Your task to perform on an android device: Go to eBay Image 0: 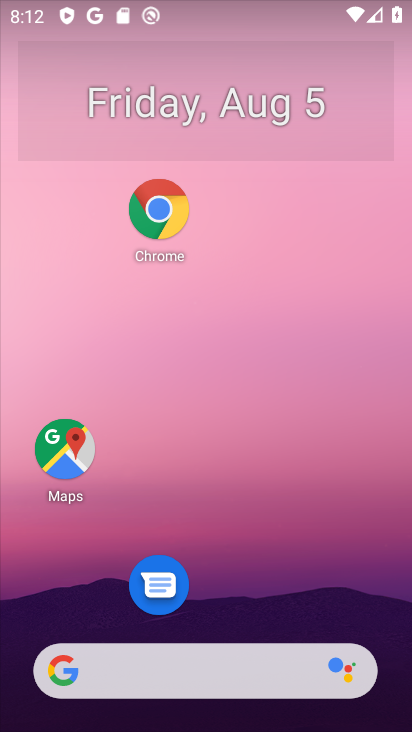
Step 0: click (176, 233)
Your task to perform on an android device: Go to eBay Image 1: 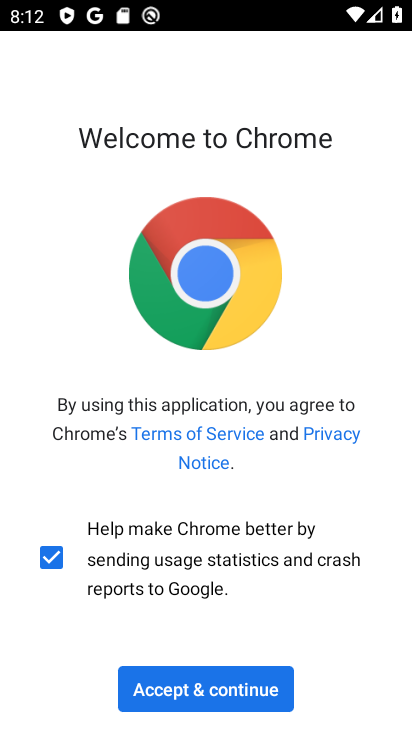
Step 1: click (255, 691)
Your task to perform on an android device: Go to eBay Image 2: 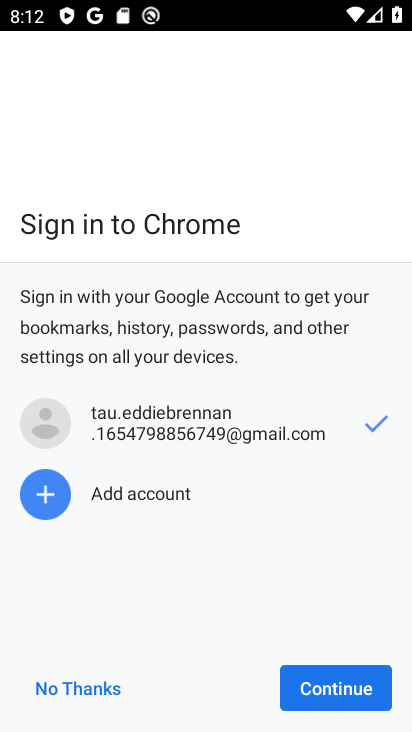
Step 2: click (306, 694)
Your task to perform on an android device: Go to eBay Image 3: 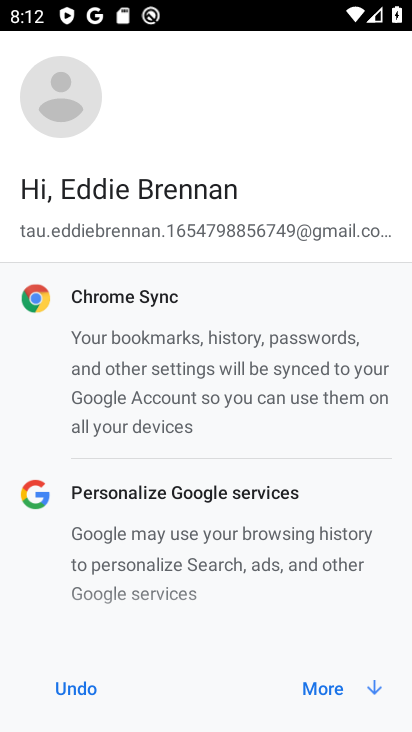
Step 3: click (306, 694)
Your task to perform on an android device: Go to eBay Image 4: 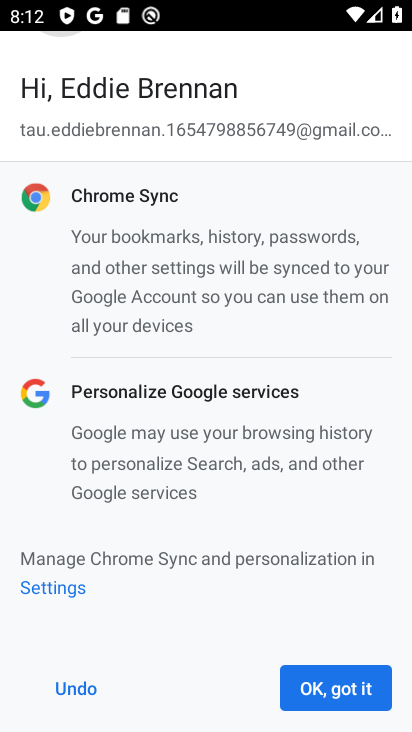
Step 4: click (306, 694)
Your task to perform on an android device: Go to eBay Image 5: 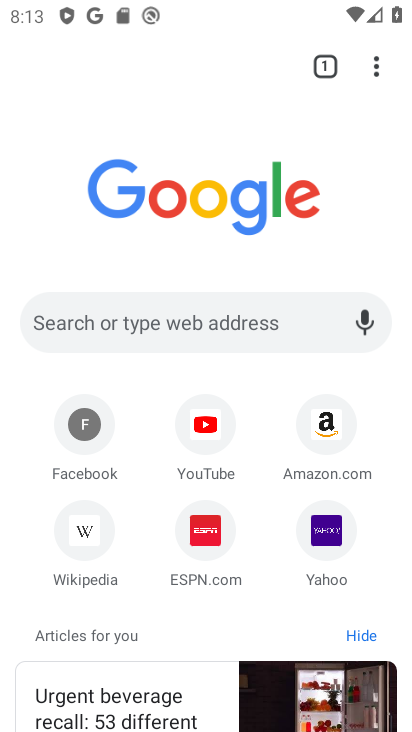
Step 5: click (190, 305)
Your task to perform on an android device: Go to eBay Image 6: 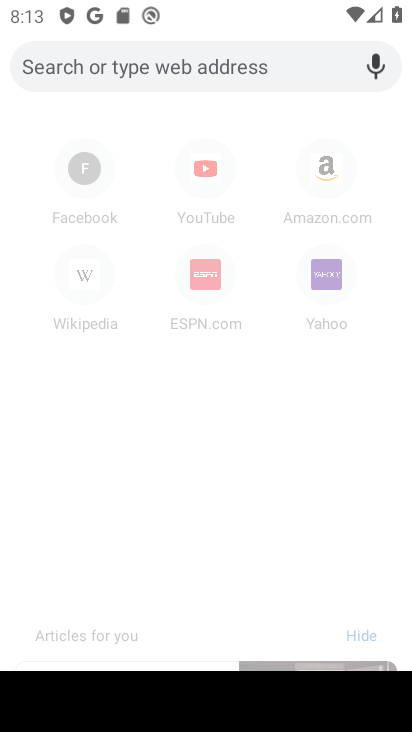
Step 6: type "eBay"
Your task to perform on an android device: Go to eBay Image 7: 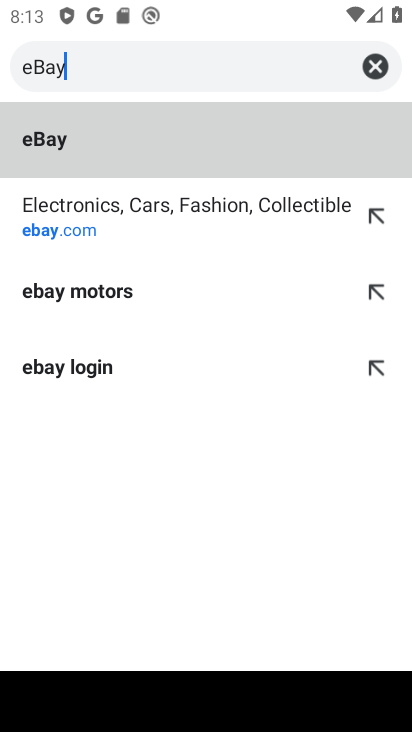
Step 7: click (195, 223)
Your task to perform on an android device: Go to eBay Image 8: 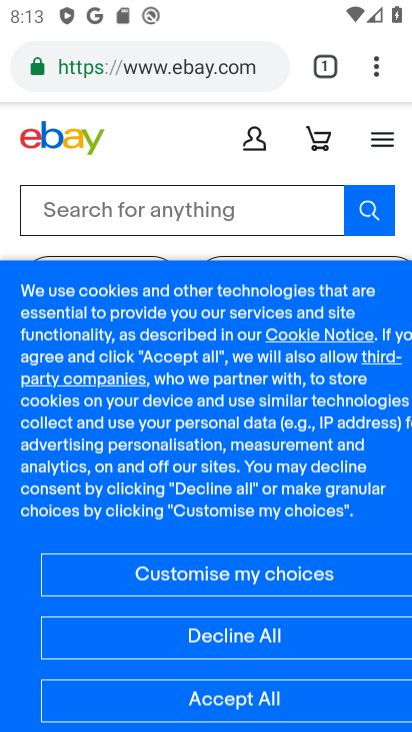
Step 8: task complete